Your task to perform on an android device: turn pop-ups on in chrome Image 0: 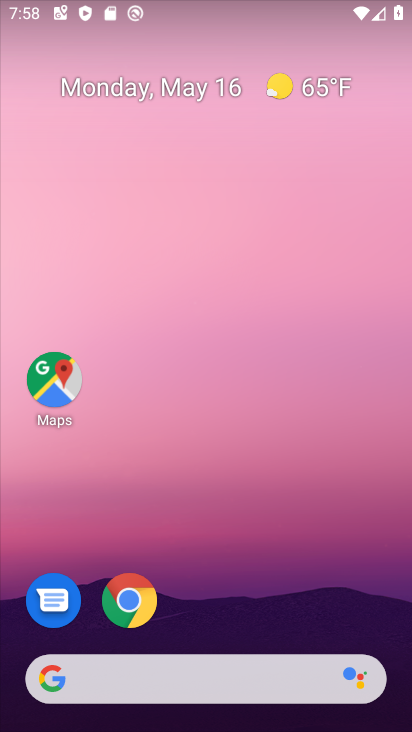
Step 0: drag from (212, 604) to (286, 3)
Your task to perform on an android device: turn pop-ups on in chrome Image 1: 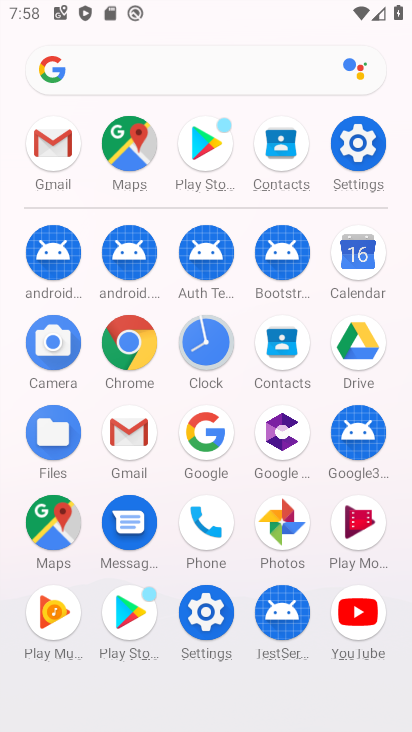
Step 1: click (126, 342)
Your task to perform on an android device: turn pop-ups on in chrome Image 2: 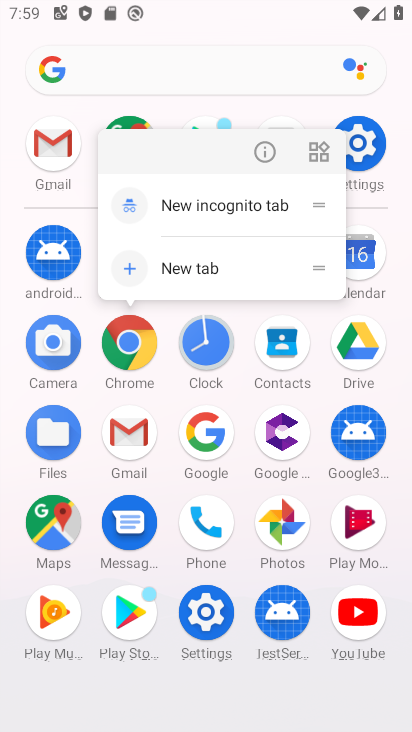
Step 2: click (271, 143)
Your task to perform on an android device: turn pop-ups on in chrome Image 3: 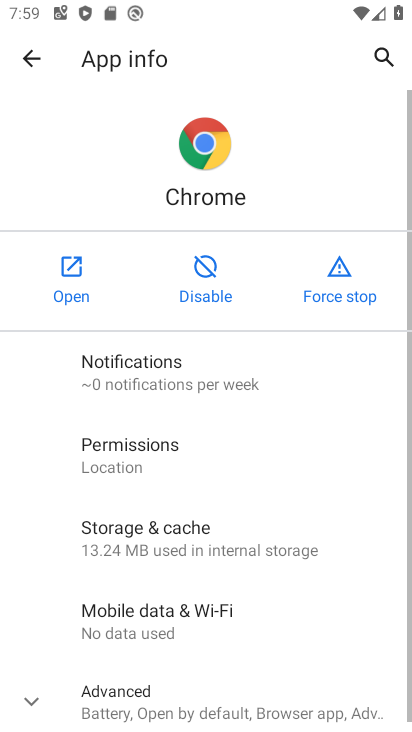
Step 3: click (64, 292)
Your task to perform on an android device: turn pop-ups on in chrome Image 4: 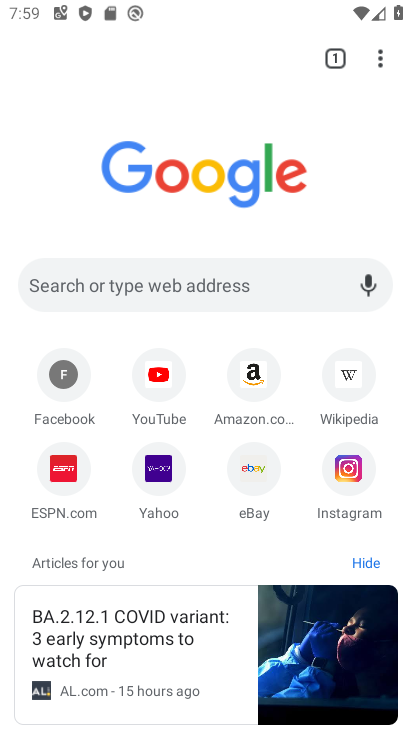
Step 4: click (381, 56)
Your task to perform on an android device: turn pop-ups on in chrome Image 5: 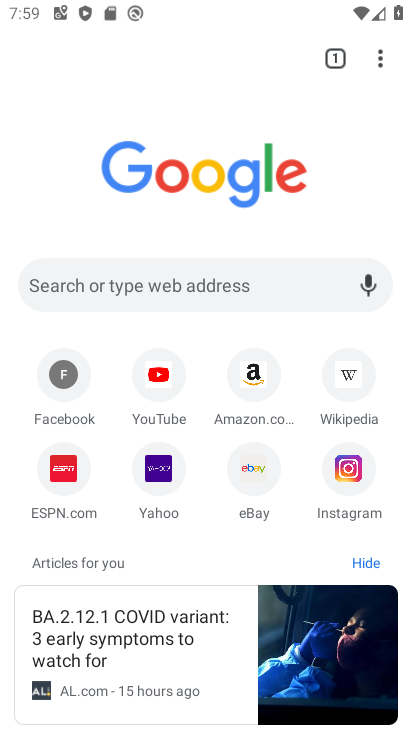
Step 5: click (379, 55)
Your task to perform on an android device: turn pop-ups on in chrome Image 6: 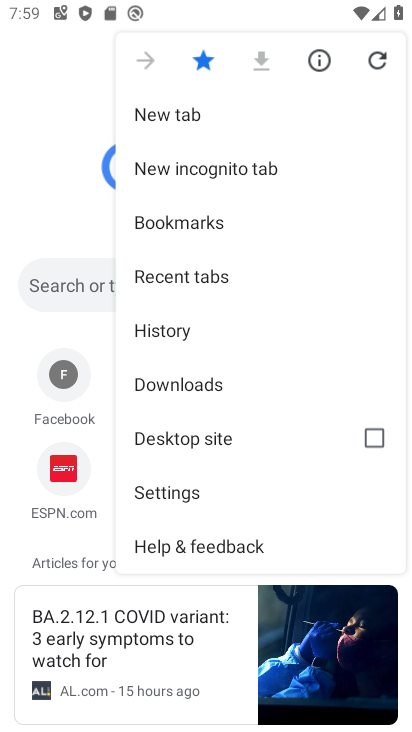
Step 6: click (203, 490)
Your task to perform on an android device: turn pop-ups on in chrome Image 7: 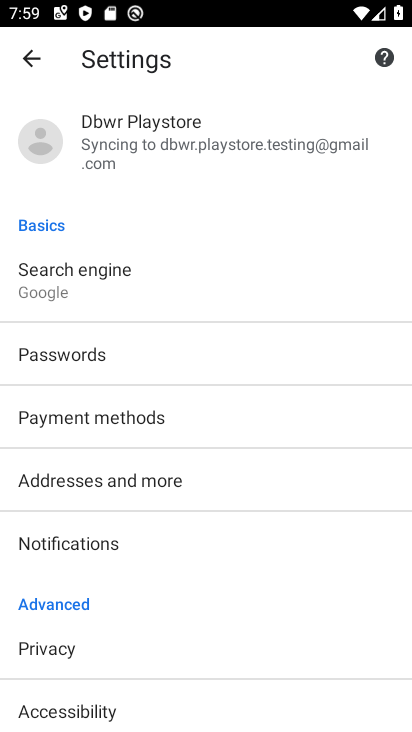
Step 7: drag from (190, 649) to (314, 223)
Your task to perform on an android device: turn pop-ups on in chrome Image 8: 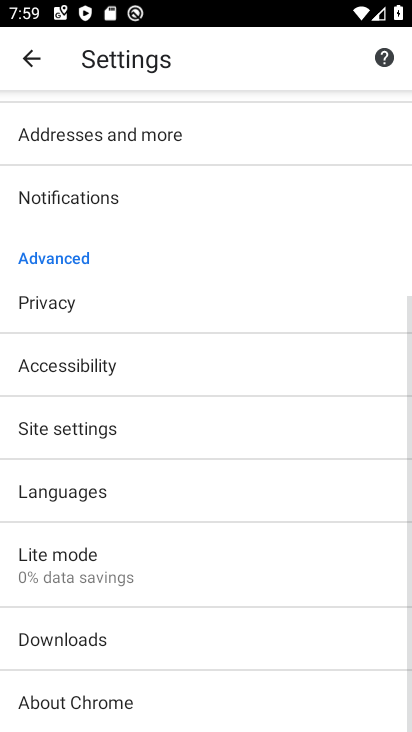
Step 8: click (131, 419)
Your task to perform on an android device: turn pop-ups on in chrome Image 9: 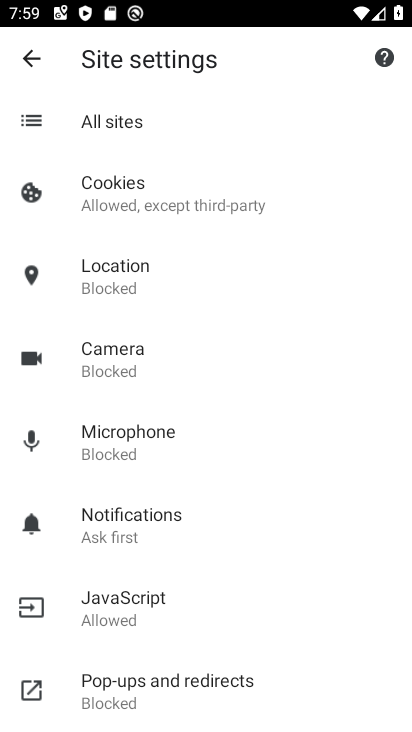
Step 9: click (152, 690)
Your task to perform on an android device: turn pop-ups on in chrome Image 10: 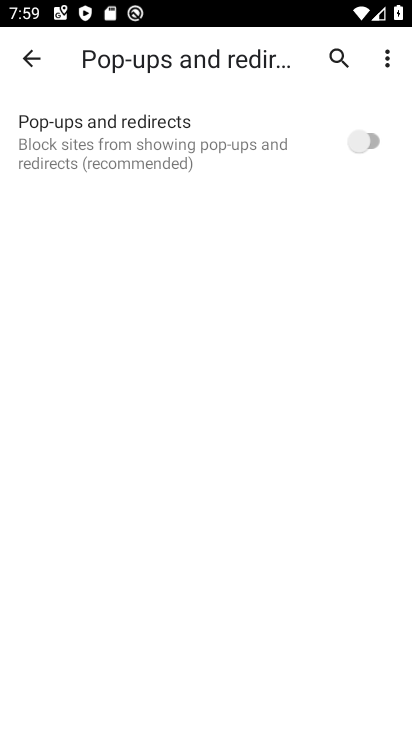
Step 10: click (361, 152)
Your task to perform on an android device: turn pop-ups on in chrome Image 11: 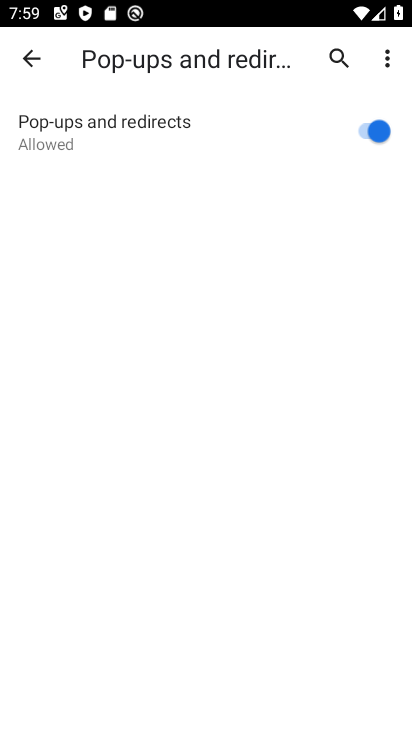
Step 11: task complete